Your task to perform on an android device: Open calendar and show me the first week of next month Image 0: 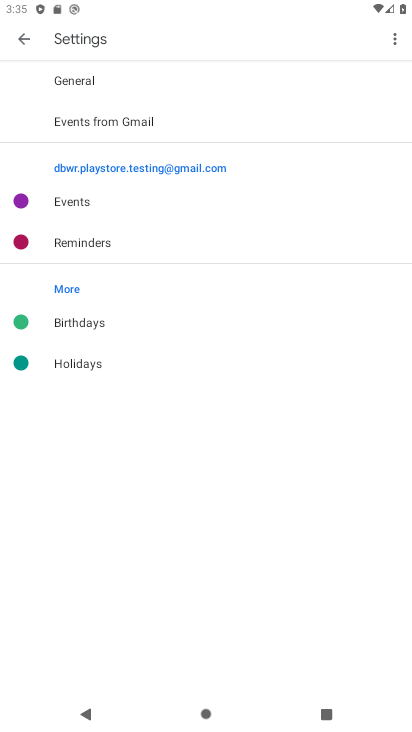
Step 0: press home button
Your task to perform on an android device: Open calendar and show me the first week of next month Image 1: 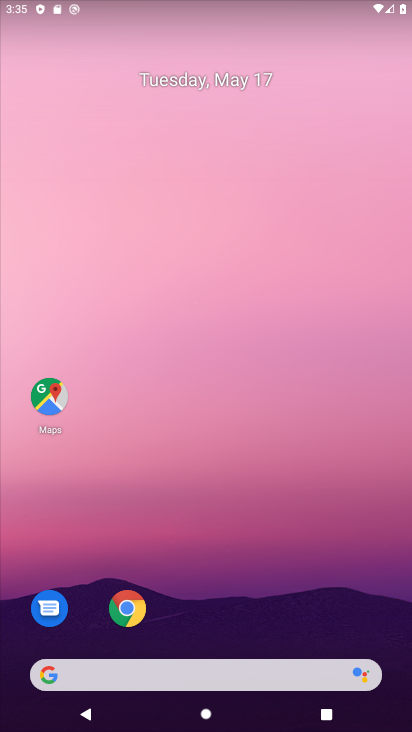
Step 1: drag from (252, 660) to (252, 293)
Your task to perform on an android device: Open calendar and show me the first week of next month Image 2: 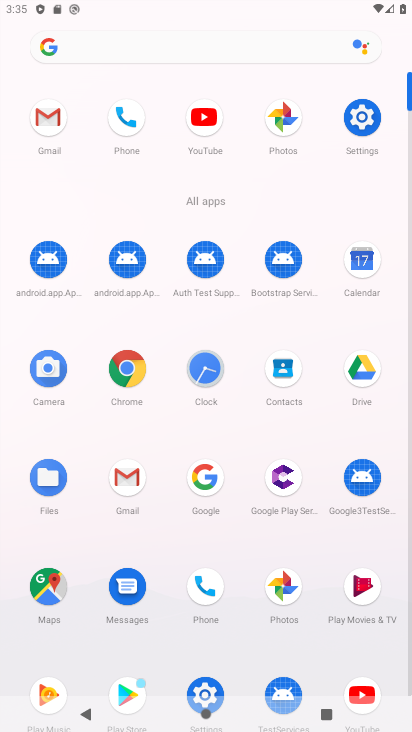
Step 2: click (365, 260)
Your task to perform on an android device: Open calendar and show me the first week of next month Image 3: 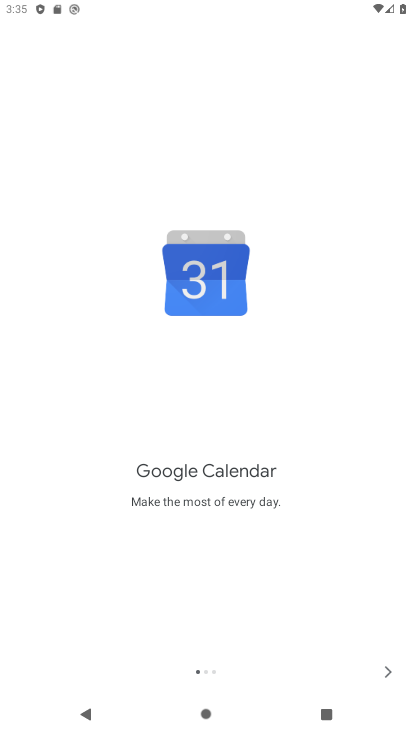
Step 3: click (381, 668)
Your task to perform on an android device: Open calendar and show me the first week of next month Image 4: 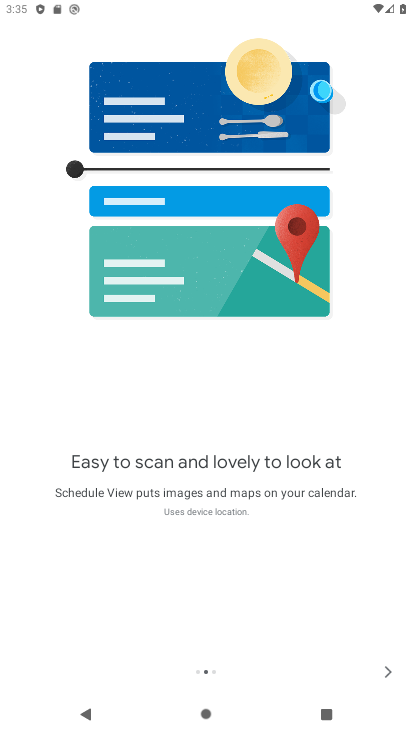
Step 4: click (381, 668)
Your task to perform on an android device: Open calendar and show me the first week of next month Image 5: 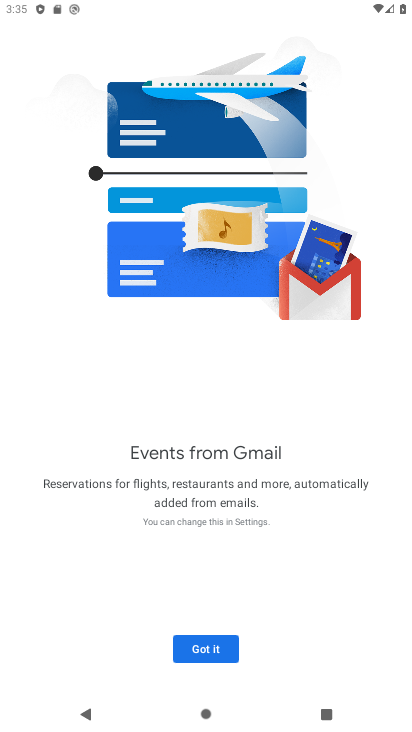
Step 5: click (220, 645)
Your task to perform on an android device: Open calendar and show me the first week of next month Image 6: 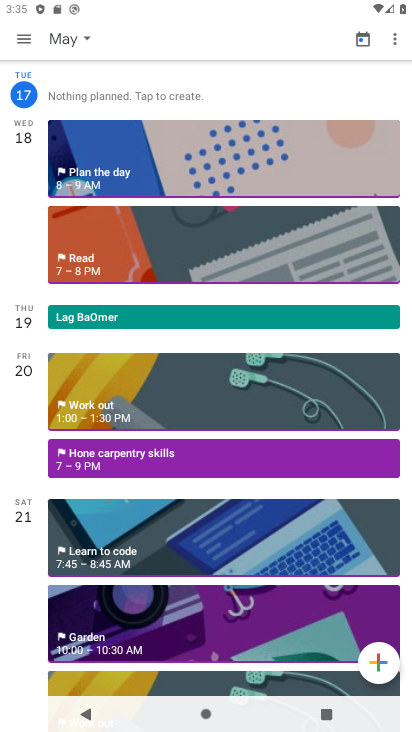
Step 6: click (67, 28)
Your task to perform on an android device: Open calendar and show me the first week of next month Image 7: 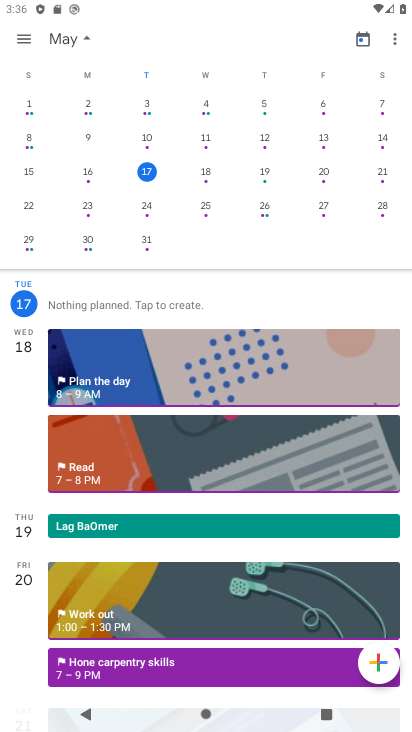
Step 7: drag from (277, 173) to (5, 133)
Your task to perform on an android device: Open calendar and show me the first week of next month Image 8: 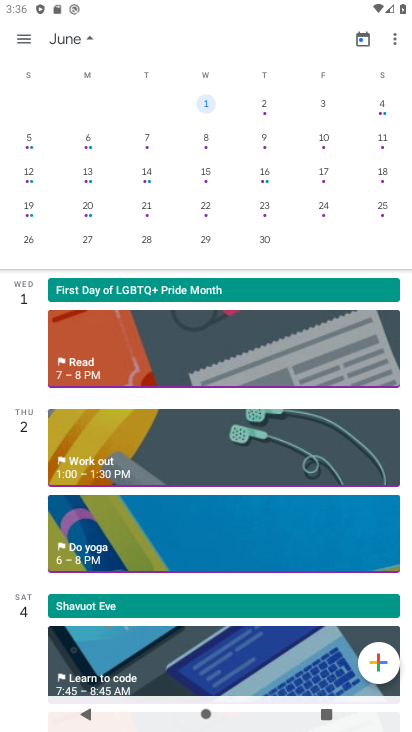
Step 8: click (36, 137)
Your task to perform on an android device: Open calendar and show me the first week of next month Image 9: 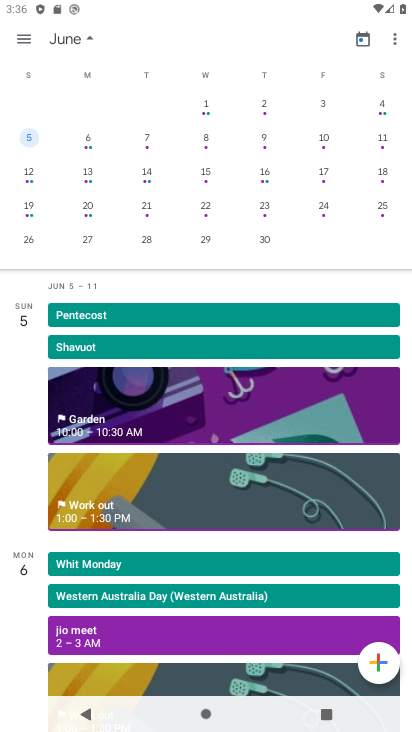
Step 9: task complete